Your task to perform on an android device: open app "Nova Launcher" (install if not already installed) and go to login screen Image 0: 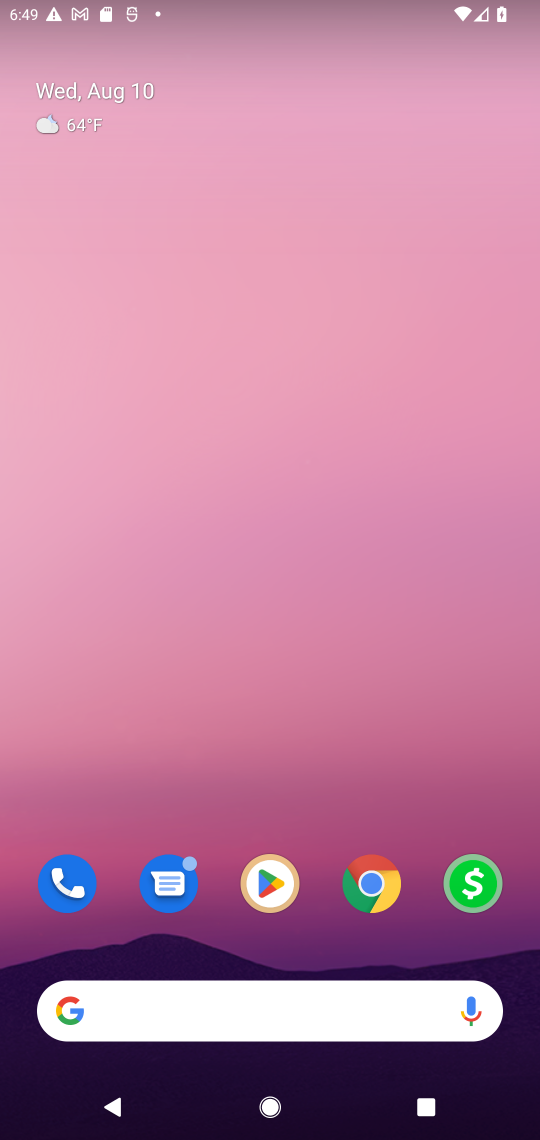
Step 0: click (258, 907)
Your task to perform on an android device: open app "Nova Launcher" (install if not already installed) and go to login screen Image 1: 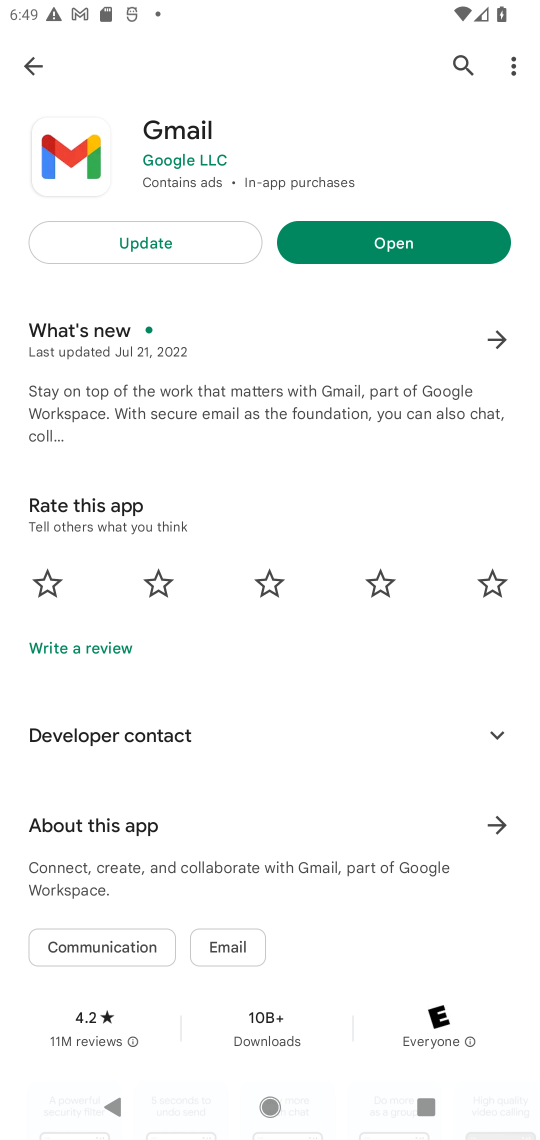
Step 1: click (457, 62)
Your task to perform on an android device: open app "Nova Launcher" (install if not already installed) and go to login screen Image 2: 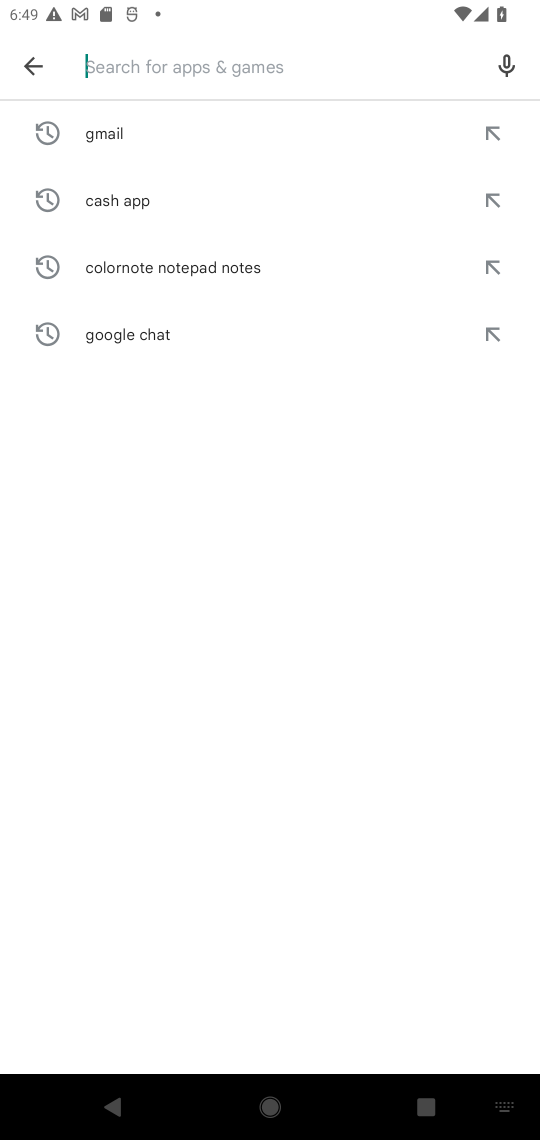
Step 2: type "Nova Launcher"
Your task to perform on an android device: open app "Nova Launcher" (install if not already installed) and go to login screen Image 3: 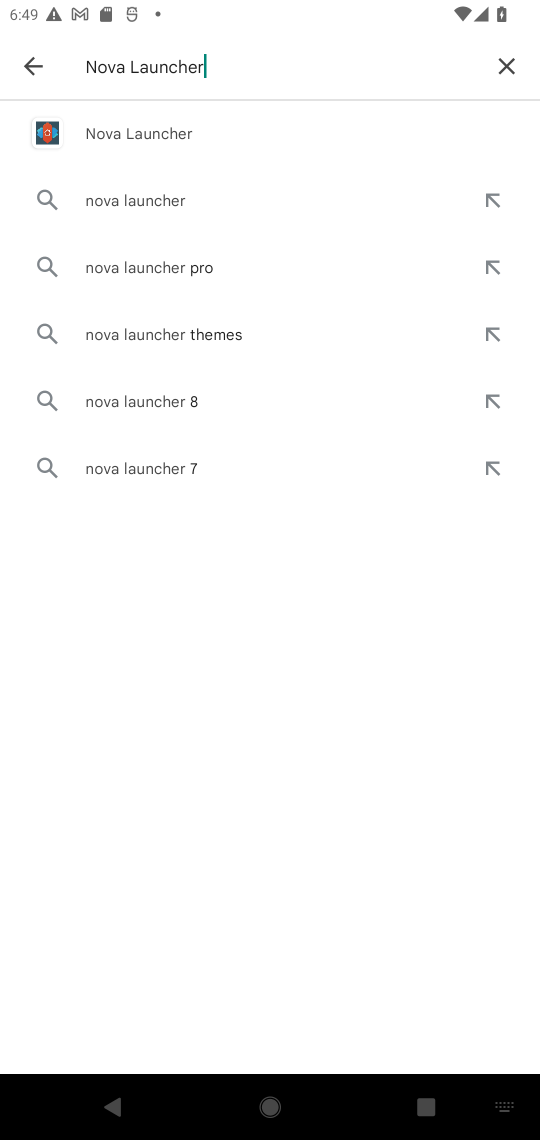
Step 3: click (179, 139)
Your task to perform on an android device: open app "Nova Launcher" (install if not already installed) and go to login screen Image 4: 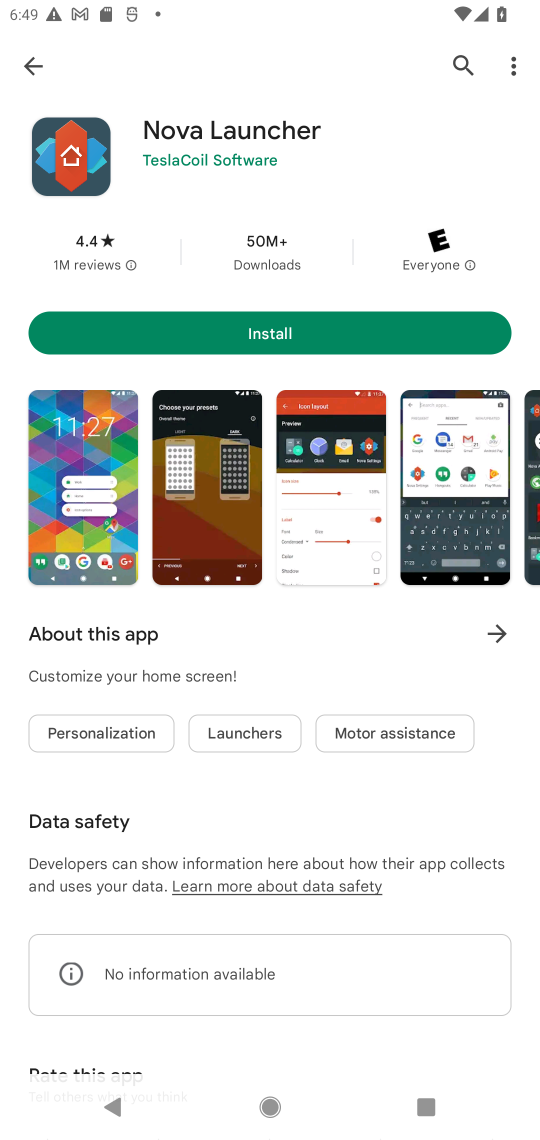
Step 4: click (369, 322)
Your task to perform on an android device: open app "Nova Launcher" (install if not already installed) and go to login screen Image 5: 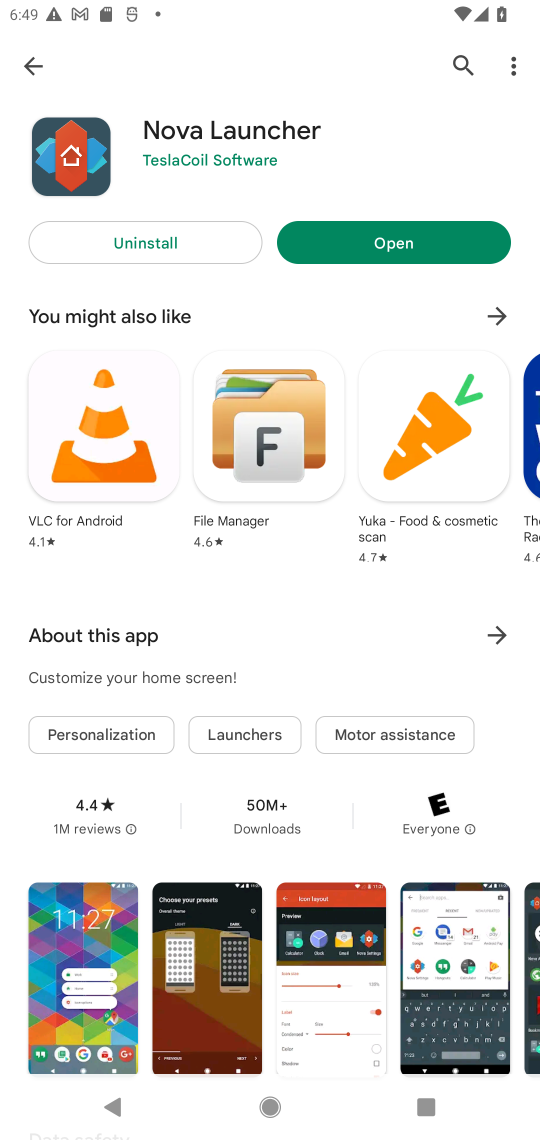
Step 5: click (370, 251)
Your task to perform on an android device: open app "Nova Launcher" (install if not already installed) and go to login screen Image 6: 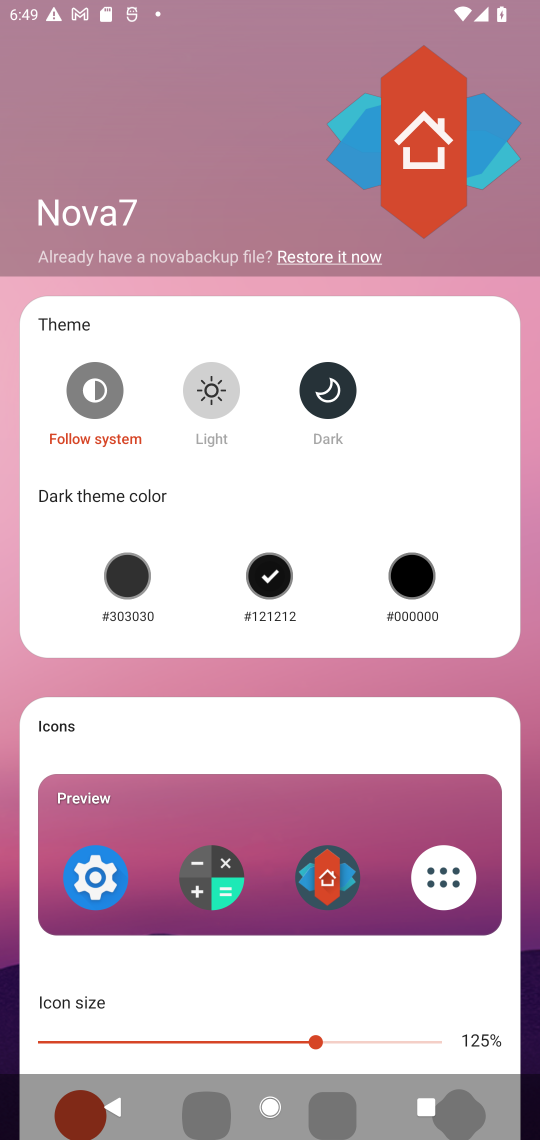
Step 6: task complete